Your task to perform on an android device: turn on the 24-hour format for clock Image 0: 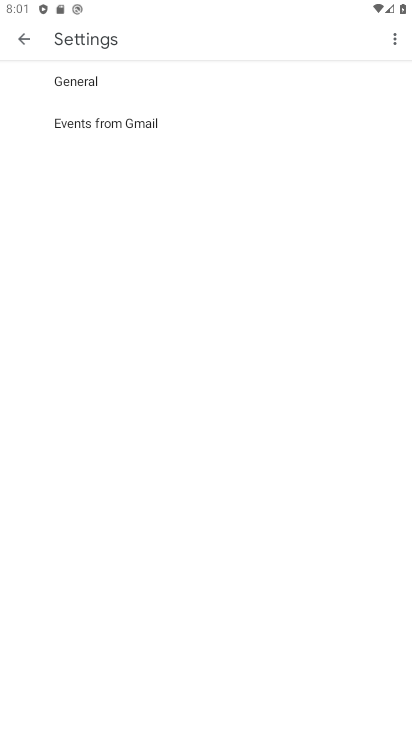
Step 0: press home button
Your task to perform on an android device: turn on the 24-hour format for clock Image 1: 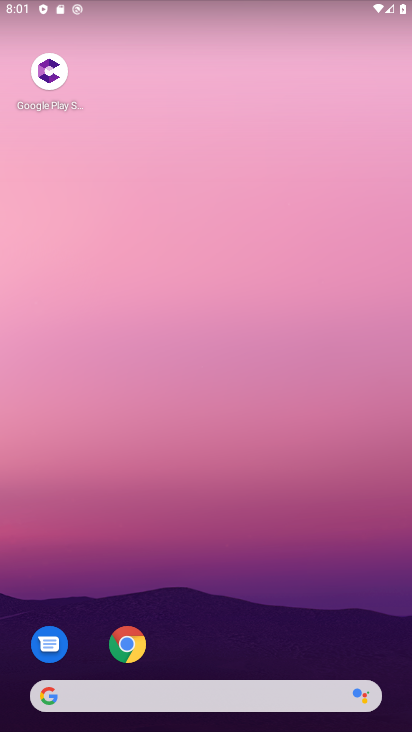
Step 1: drag from (212, 691) to (271, 316)
Your task to perform on an android device: turn on the 24-hour format for clock Image 2: 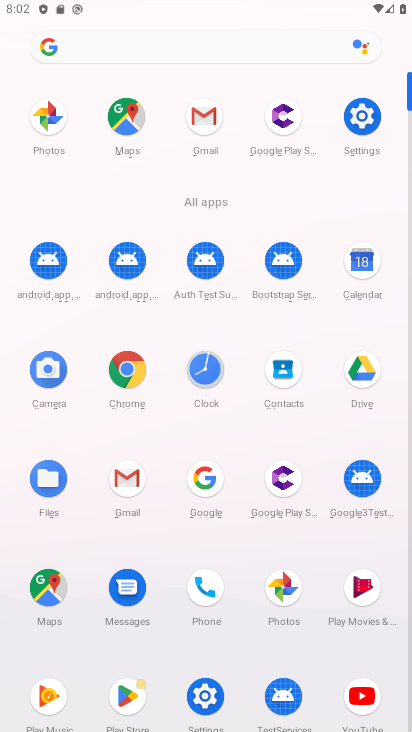
Step 2: click (203, 371)
Your task to perform on an android device: turn on the 24-hour format for clock Image 3: 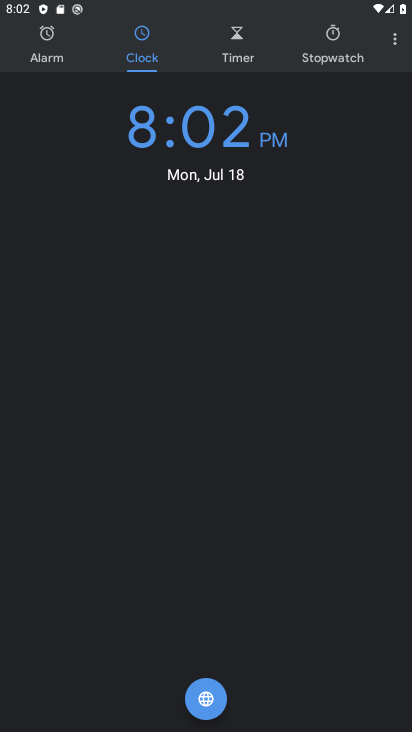
Step 3: click (395, 42)
Your task to perform on an android device: turn on the 24-hour format for clock Image 4: 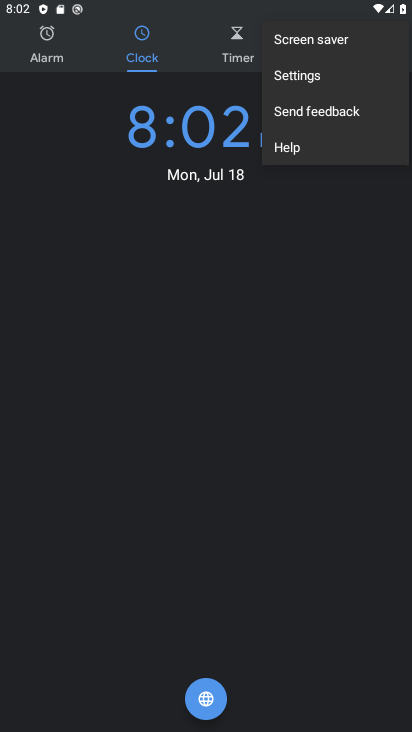
Step 4: click (313, 77)
Your task to perform on an android device: turn on the 24-hour format for clock Image 5: 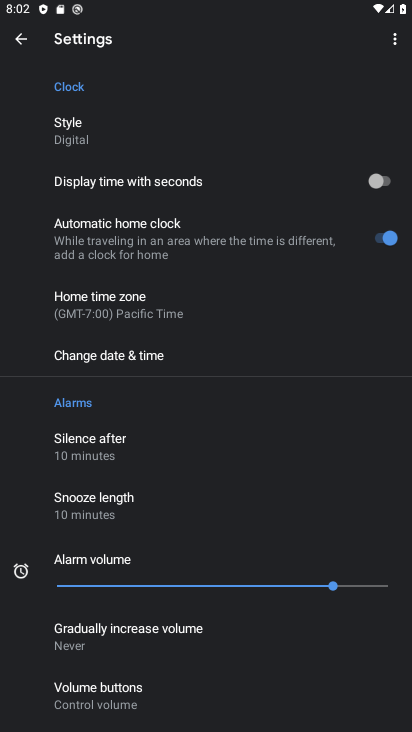
Step 5: click (153, 360)
Your task to perform on an android device: turn on the 24-hour format for clock Image 6: 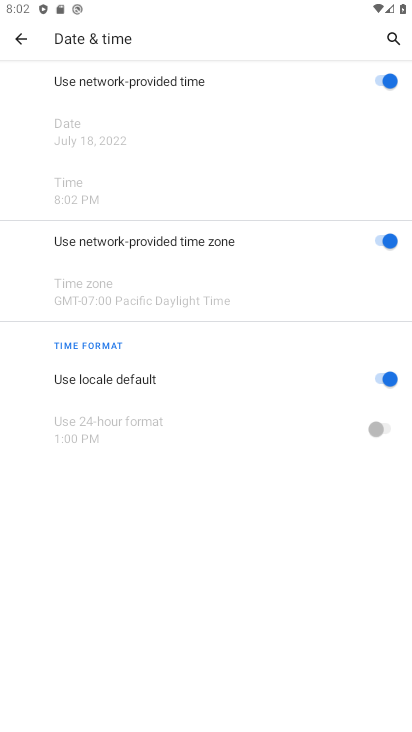
Step 6: click (380, 372)
Your task to perform on an android device: turn on the 24-hour format for clock Image 7: 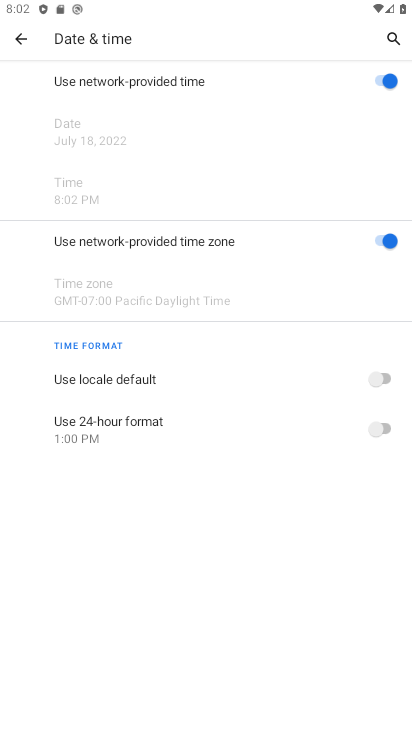
Step 7: click (382, 434)
Your task to perform on an android device: turn on the 24-hour format for clock Image 8: 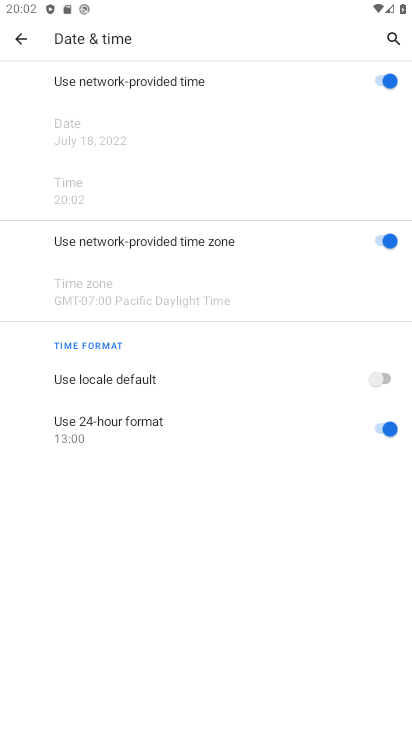
Step 8: task complete